Your task to perform on an android device: Open the calendar app, open the side menu, and click the "Day" option Image 0: 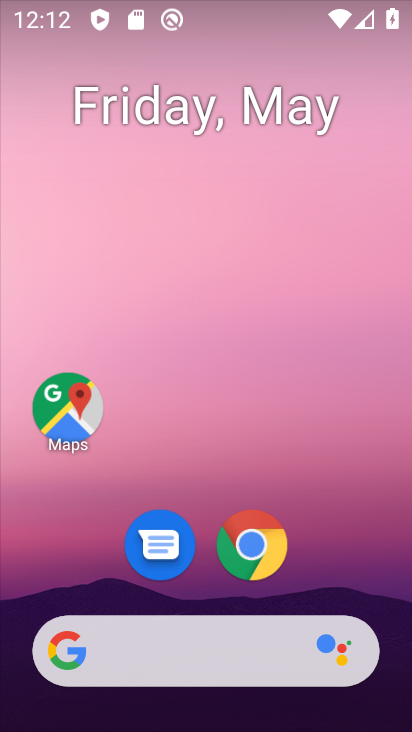
Step 0: click (197, 102)
Your task to perform on an android device: Open the calendar app, open the side menu, and click the "Day" option Image 1: 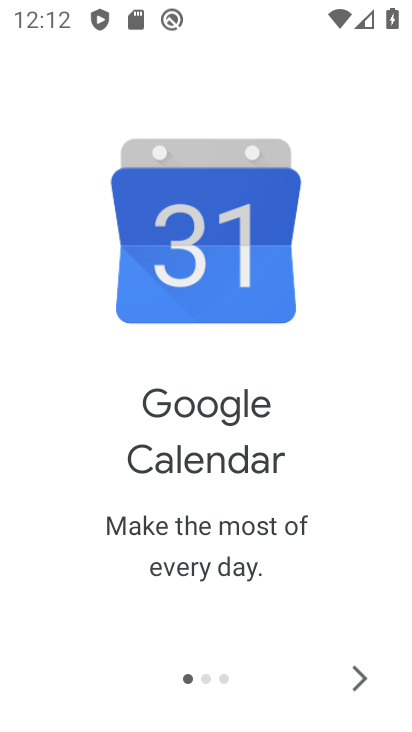
Step 1: click (354, 672)
Your task to perform on an android device: Open the calendar app, open the side menu, and click the "Day" option Image 2: 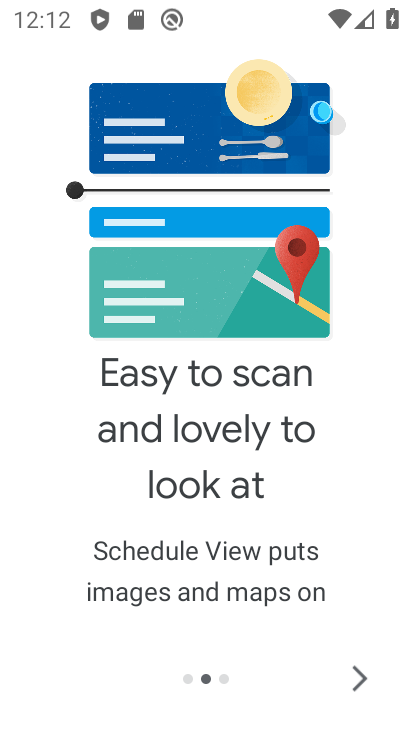
Step 2: click (359, 673)
Your task to perform on an android device: Open the calendar app, open the side menu, and click the "Day" option Image 3: 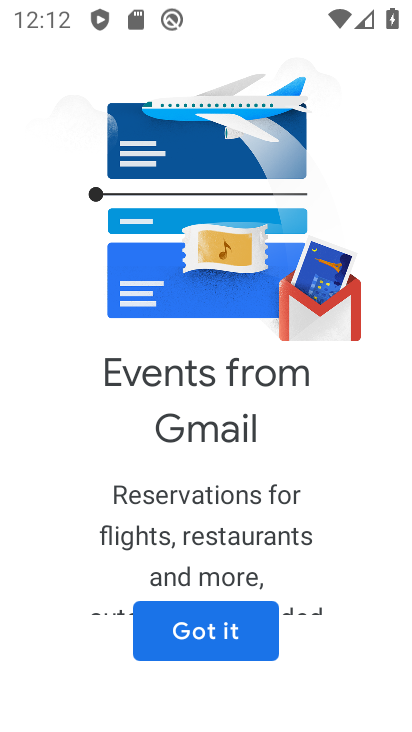
Step 3: click (243, 629)
Your task to perform on an android device: Open the calendar app, open the side menu, and click the "Day" option Image 4: 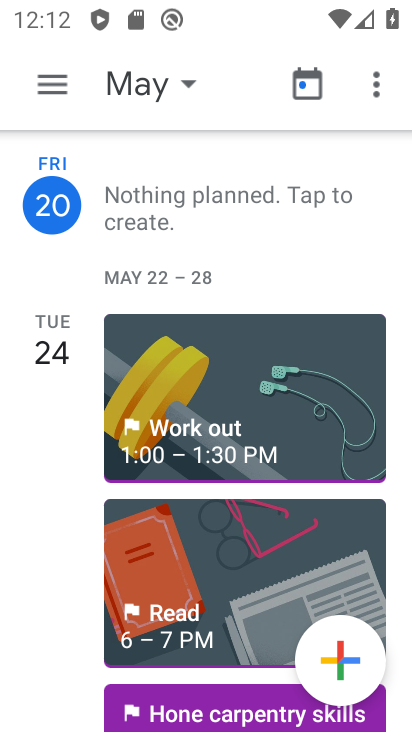
Step 4: click (59, 86)
Your task to perform on an android device: Open the calendar app, open the side menu, and click the "Day" option Image 5: 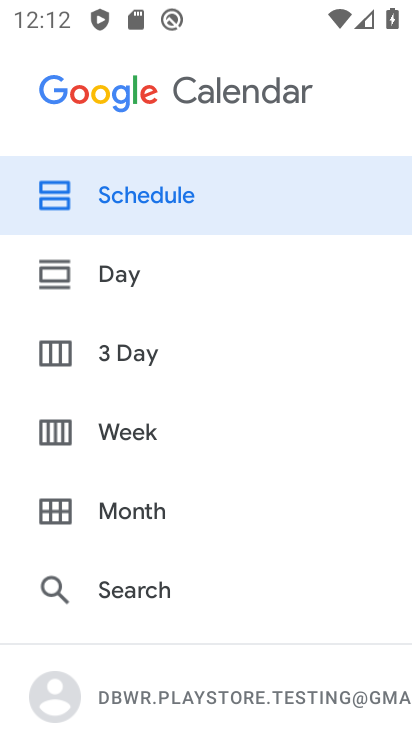
Step 5: click (127, 285)
Your task to perform on an android device: Open the calendar app, open the side menu, and click the "Day" option Image 6: 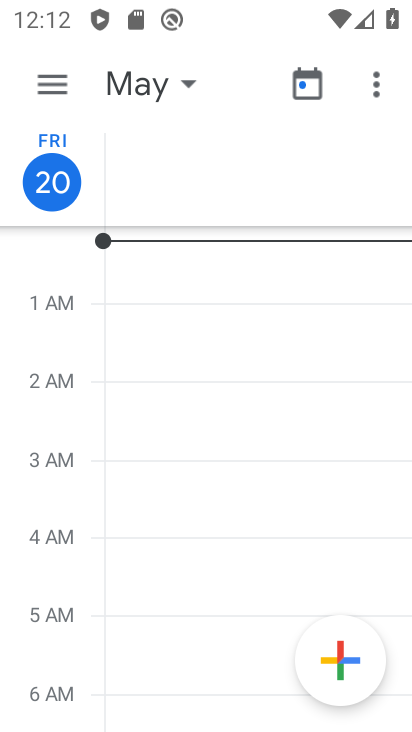
Step 6: task complete